Your task to perform on an android device: allow notifications from all sites in the chrome app Image 0: 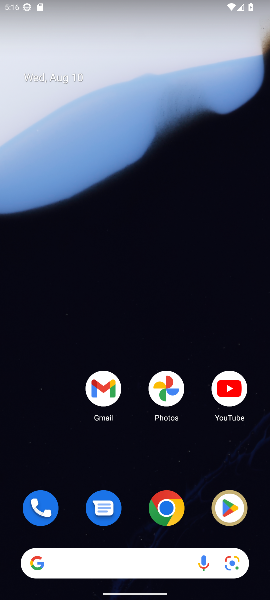
Step 0: press home button
Your task to perform on an android device: allow notifications from all sites in the chrome app Image 1: 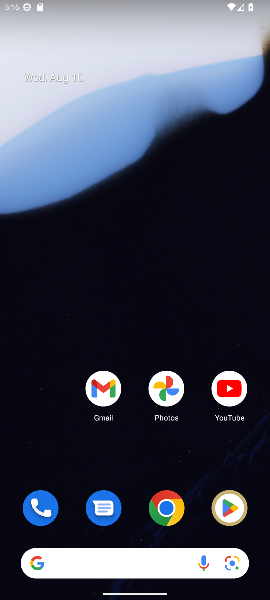
Step 1: click (174, 511)
Your task to perform on an android device: allow notifications from all sites in the chrome app Image 2: 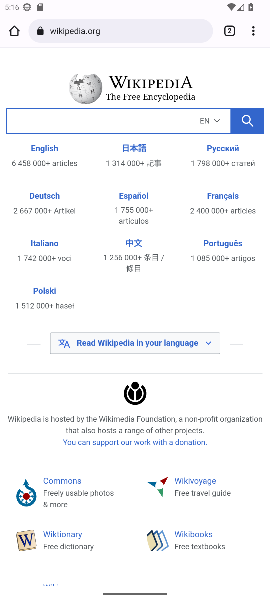
Step 2: drag from (253, 30) to (150, 396)
Your task to perform on an android device: allow notifications from all sites in the chrome app Image 3: 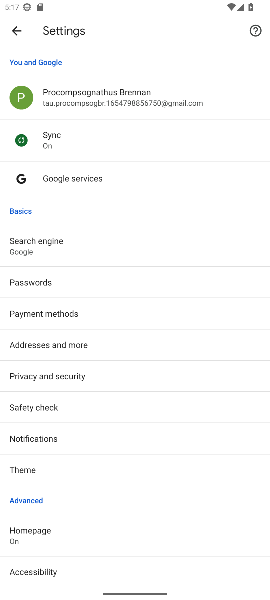
Step 3: drag from (83, 491) to (55, 231)
Your task to perform on an android device: allow notifications from all sites in the chrome app Image 4: 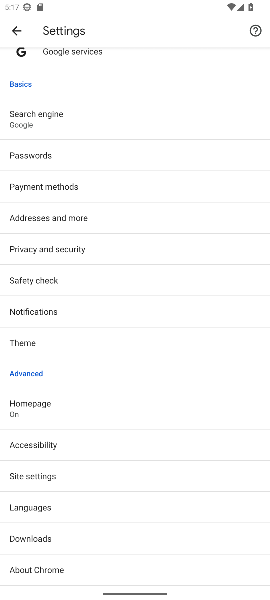
Step 4: click (36, 479)
Your task to perform on an android device: allow notifications from all sites in the chrome app Image 5: 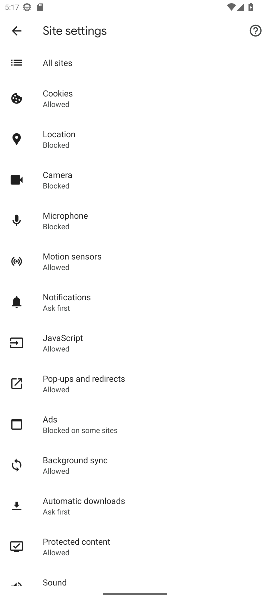
Step 5: click (61, 303)
Your task to perform on an android device: allow notifications from all sites in the chrome app Image 6: 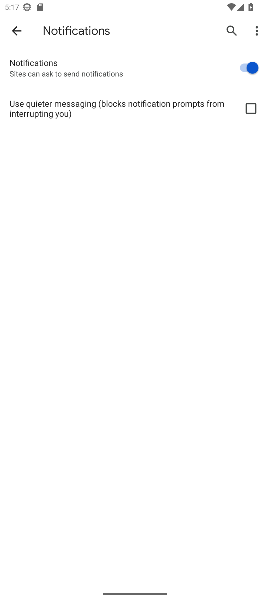
Step 6: task complete